Your task to perform on an android device: change text size in settings app Image 0: 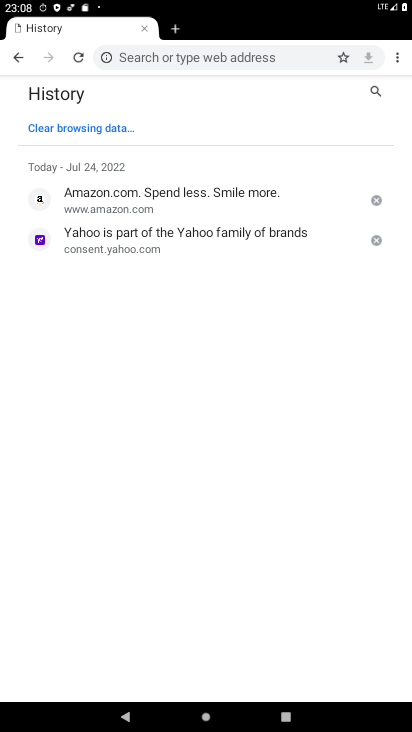
Step 0: press back button
Your task to perform on an android device: change text size in settings app Image 1: 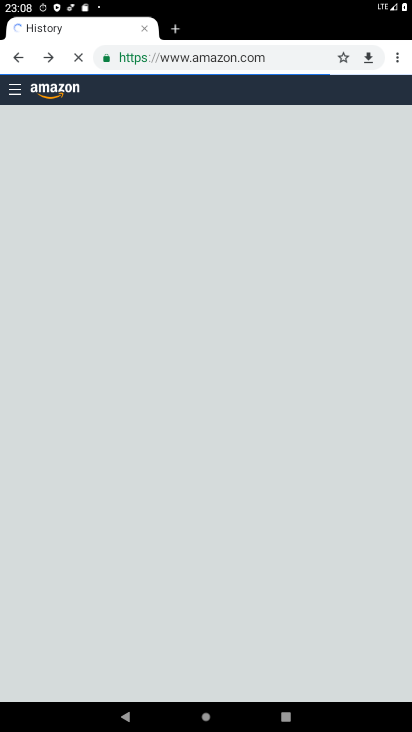
Step 1: click (14, 49)
Your task to perform on an android device: change text size in settings app Image 2: 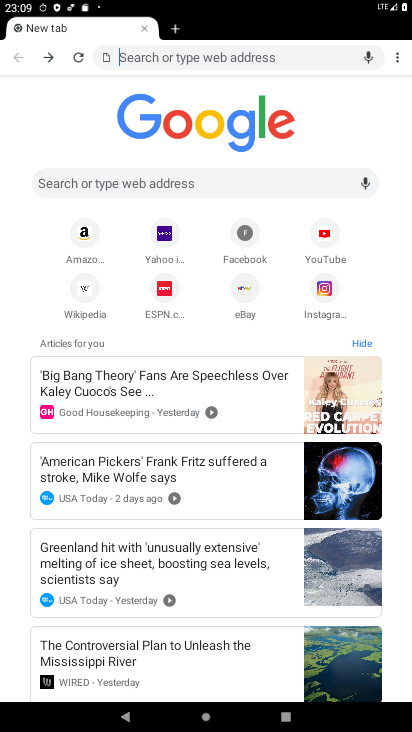
Step 2: press back button
Your task to perform on an android device: change text size in settings app Image 3: 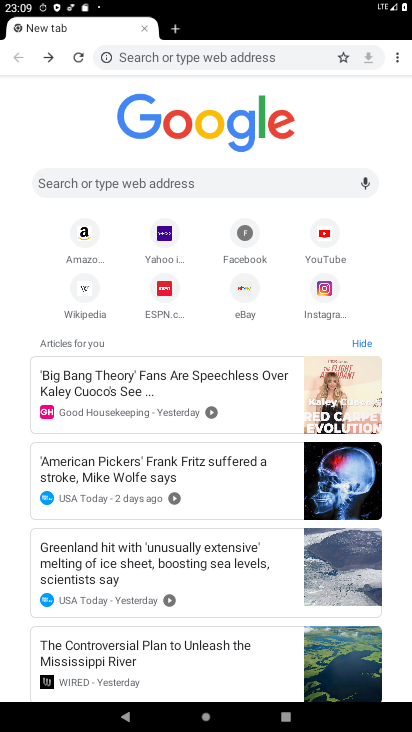
Step 3: press back button
Your task to perform on an android device: change text size in settings app Image 4: 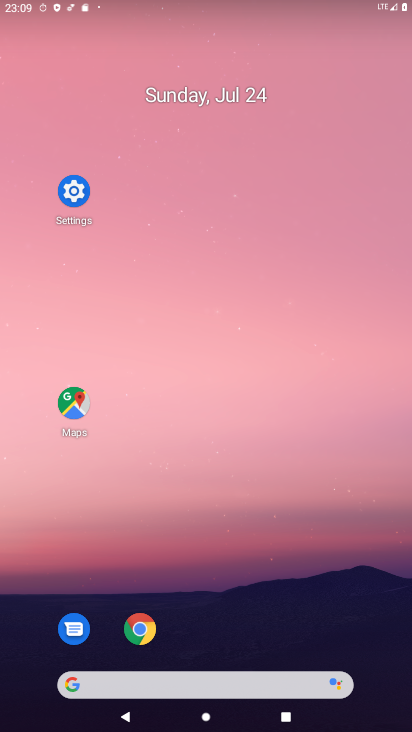
Step 4: drag from (230, 697) to (169, 93)
Your task to perform on an android device: change text size in settings app Image 5: 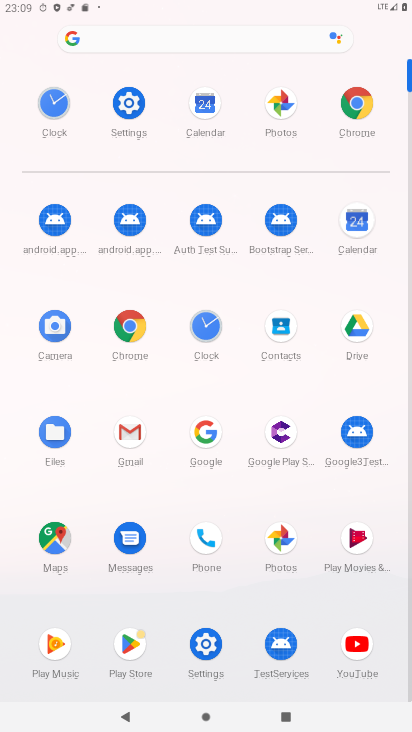
Step 5: click (123, 106)
Your task to perform on an android device: change text size in settings app Image 6: 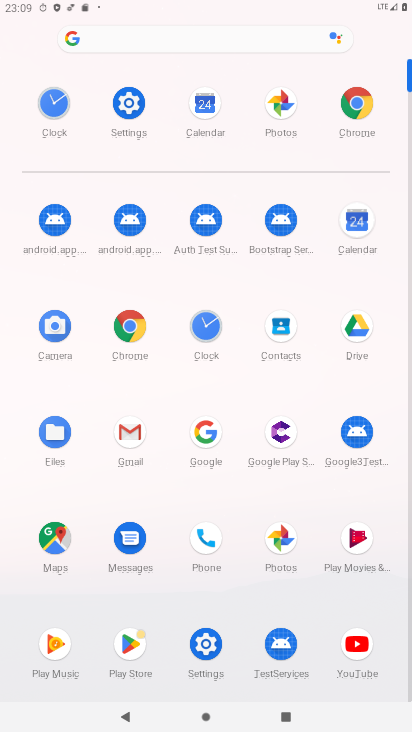
Step 6: click (122, 111)
Your task to perform on an android device: change text size in settings app Image 7: 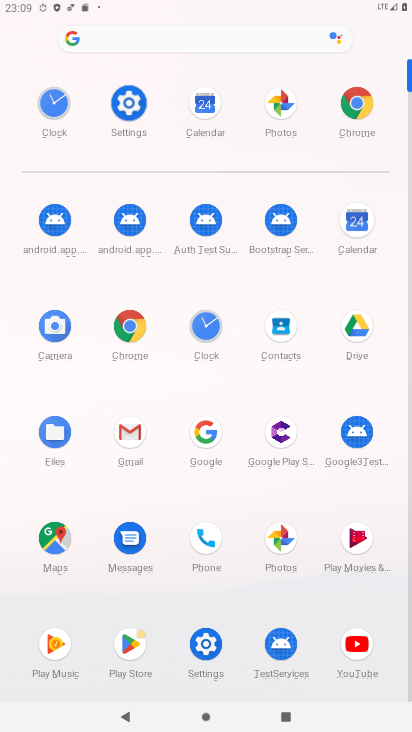
Step 7: click (130, 117)
Your task to perform on an android device: change text size in settings app Image 8: 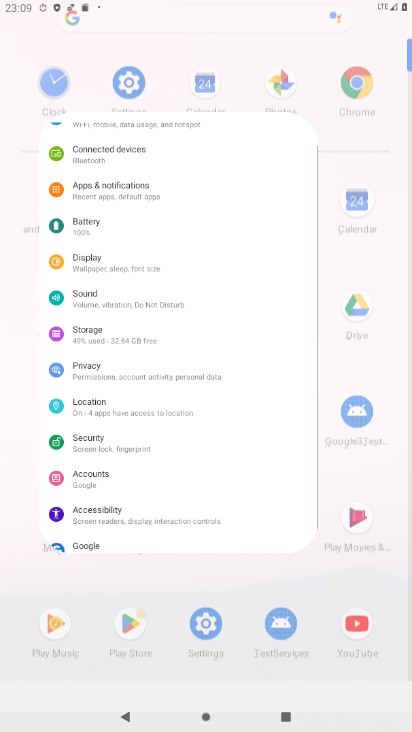
Step 8: click (129, 114)
Your task to perform on an android device: change text size in settings app Image 9: 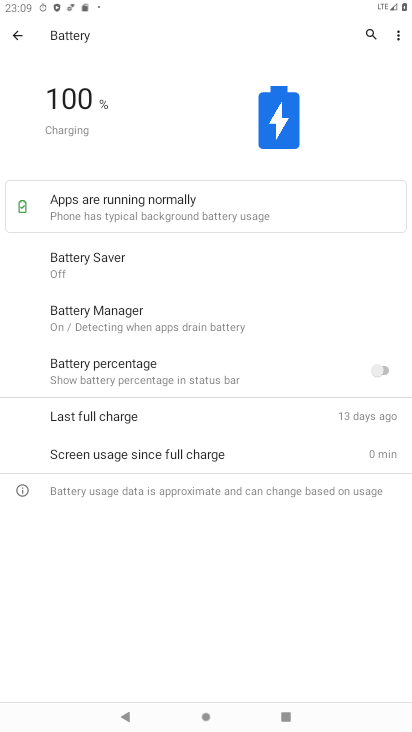
Step 9: click (8, 35)
Your task to perform on an android device: change text size in settings app Image 10: 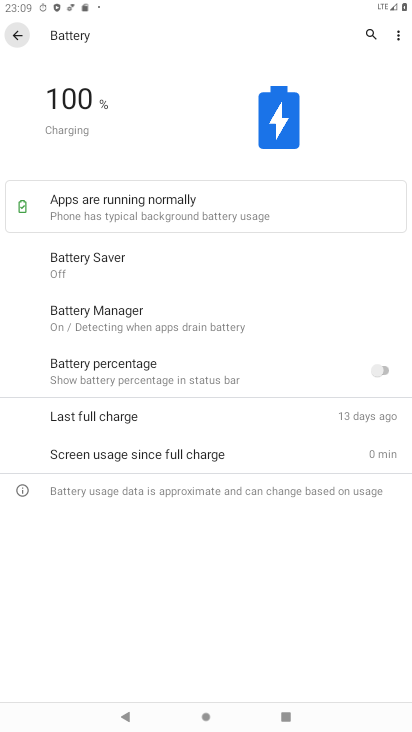
Step 10: click (19, 36)
Your task to perform on an android device: change text size in settings app Image 11: 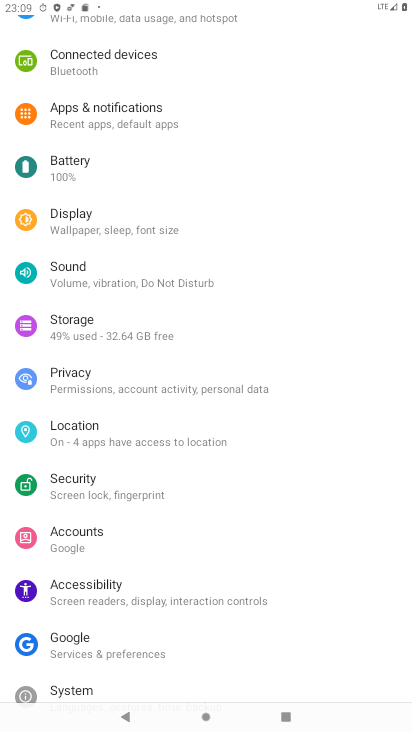
Step 11: click (72, 222)
Your task to perform on an android device: change text size in settings app Image 12: 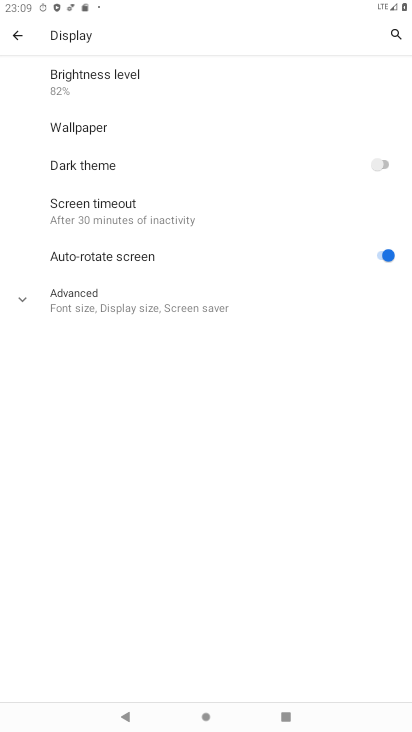
Step 12: click (96, 301)
Your task to perform on an android device: change text size in settings app Image 13: 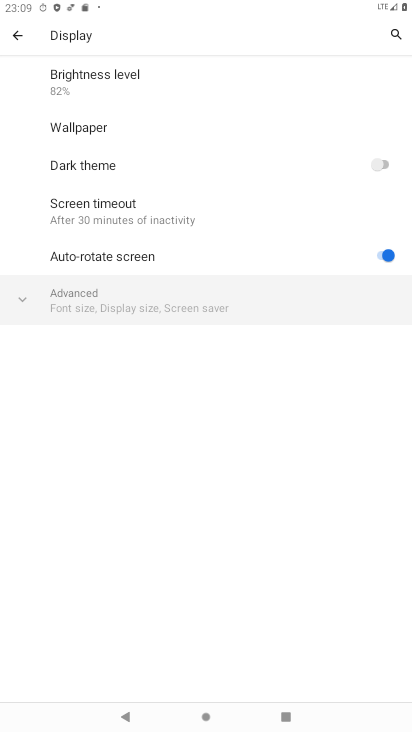
Step 13: click (92, 304)
Your task to perform on an android device: change text size in settings app Image 14: 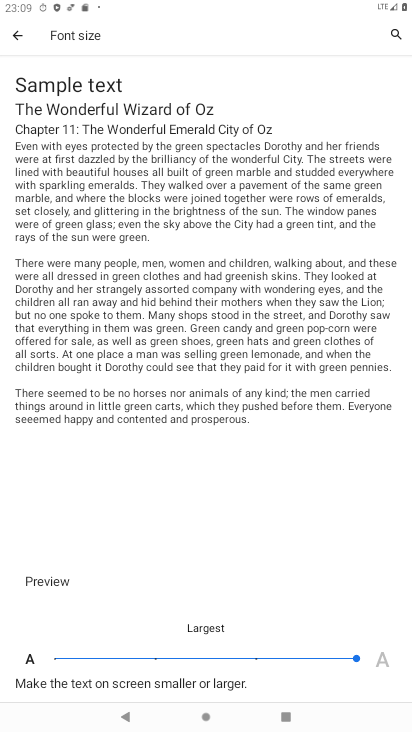
Step 14: click (246, 655)
Your task to perform on an android device: change text size in settings app Image 15: 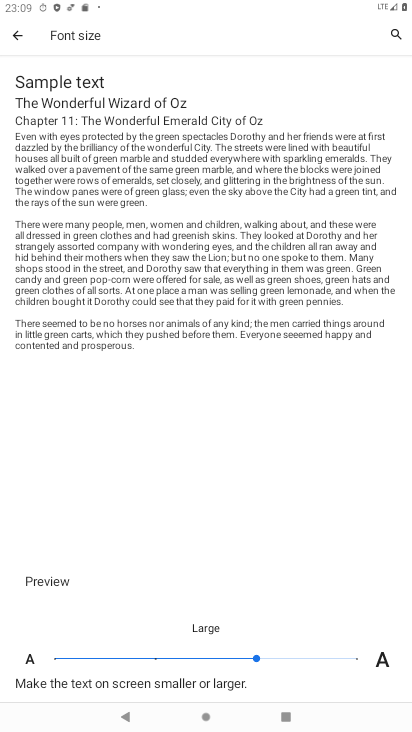
Step 15: click (343, 655)
Your task to perform on an android device: change text size in settings app Image 16: 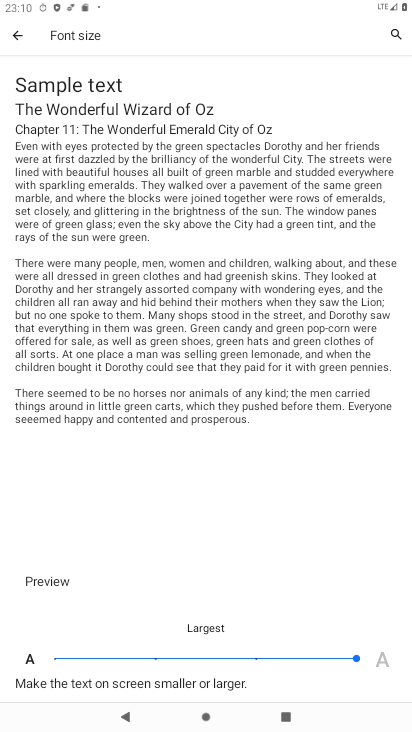
Step 16: task complete